Your task to perform on an android device: Go to calendar. Show me events next week Image 0: 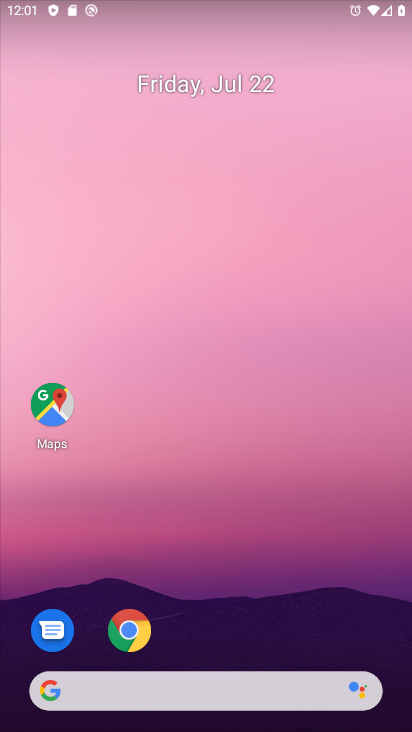
Step 0: drag from (175, 624) to (72, 145)
Your task to perform on an android device: Go to calendar. Show me events next week Image 1: 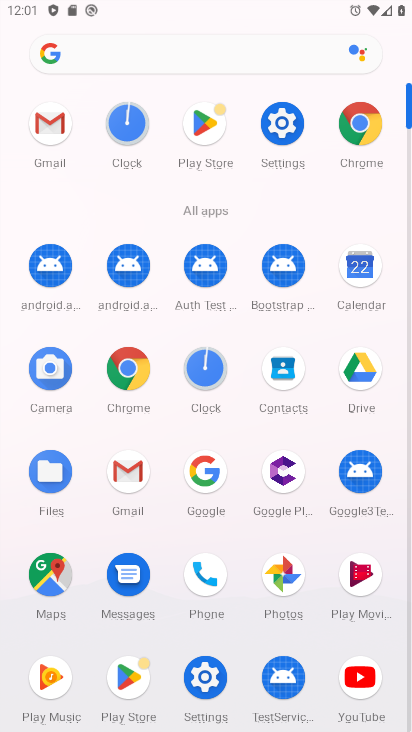
Step 1: click (365, 276)
Your task to perform on an android device: Go to calendar. Show me events next week Image 2: 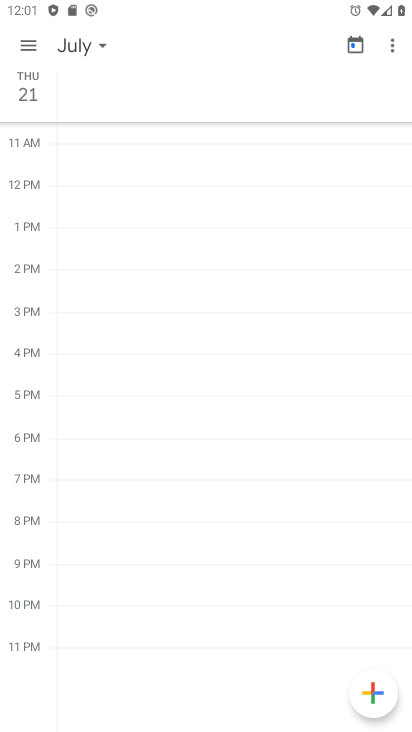
Step 2: click (83, 37)
Your task to perform on an android device: Go to calendar. Show me events next week Image 3: 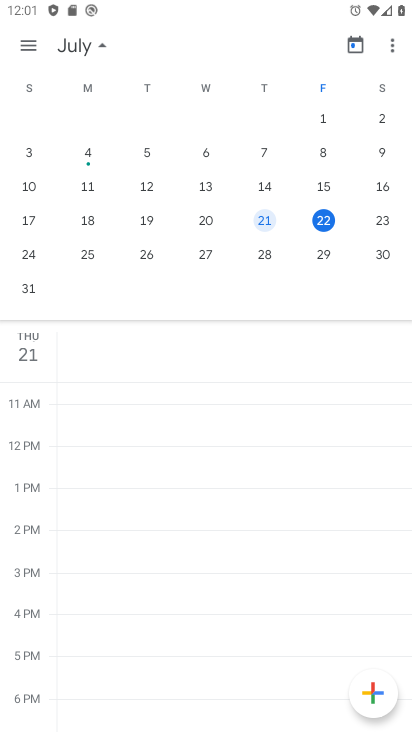
Step 3: click (21, 42)
Your task to perform on an android device: Go to calendar. Show me events next week Image 4: 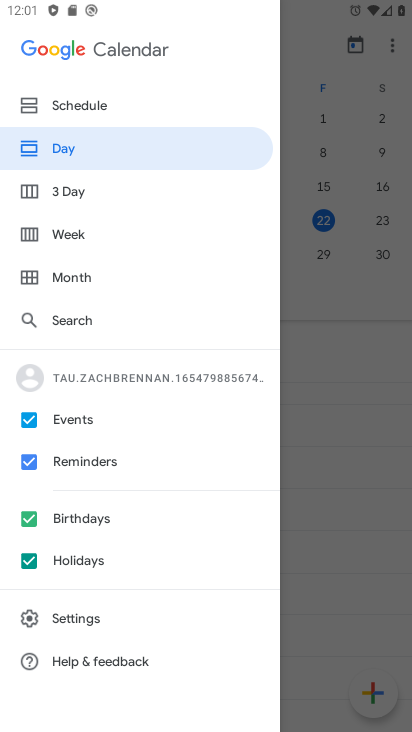
Step 4: click (55, 237)
Your task to perform on an android device: Go to calendar. Show me events next week Image 5: 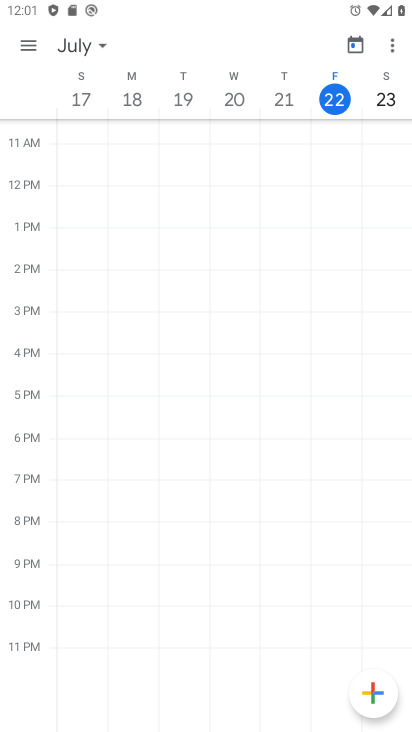
Step 5: task complete